Your task to perform on an android device: change alarm snooze length Image 0: 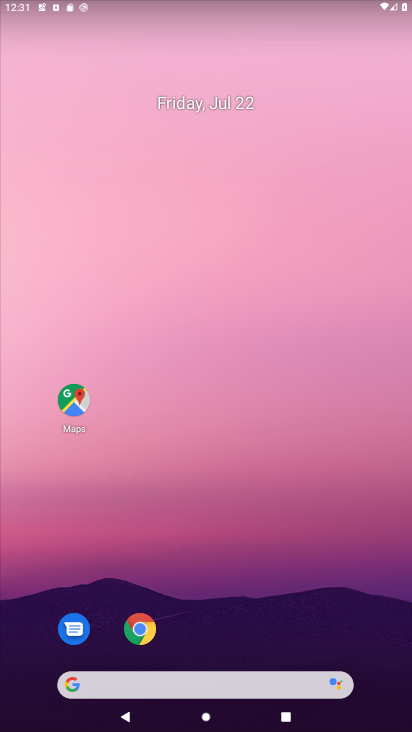
Step 0: drag from (275, 594) to (268, 62)
Your task to perform on an android device: change alarm snooze length Image 1: 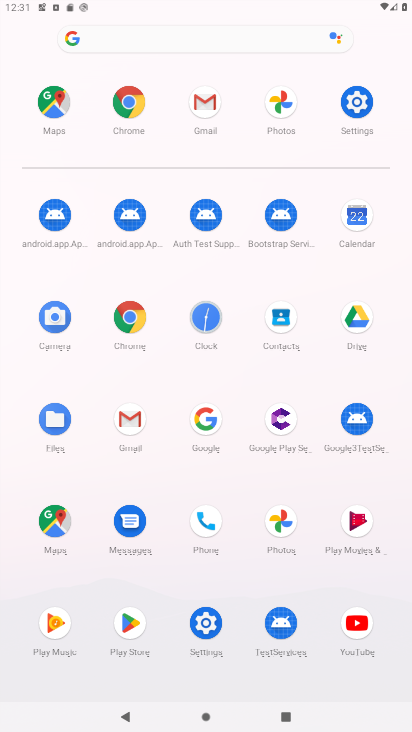
Step 1: click (209, 317)
Your task to perform on an android device: change alarm snooze length Image 2: 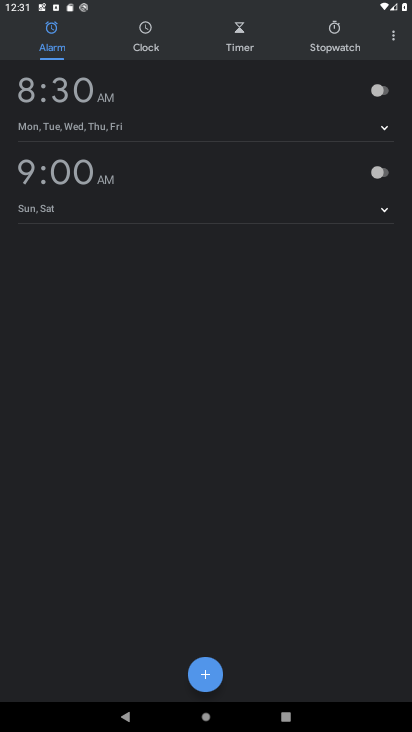
Step 2: click (393, 37)
Your task to perform on an android device: change alarm snooze length Image 3: 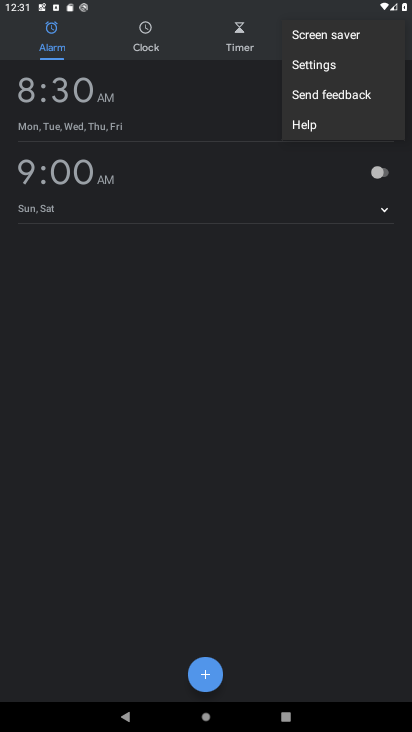
Step 3: click (350, 63)
Your task to perform on an android device: change alarm snooze length Image 4: 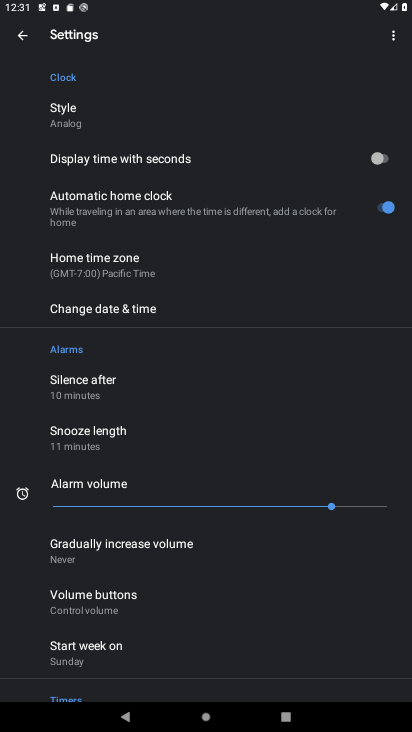
Step 4: click (151, 439)
Your task to perform on an android device: change alarm snooze length Image 5: 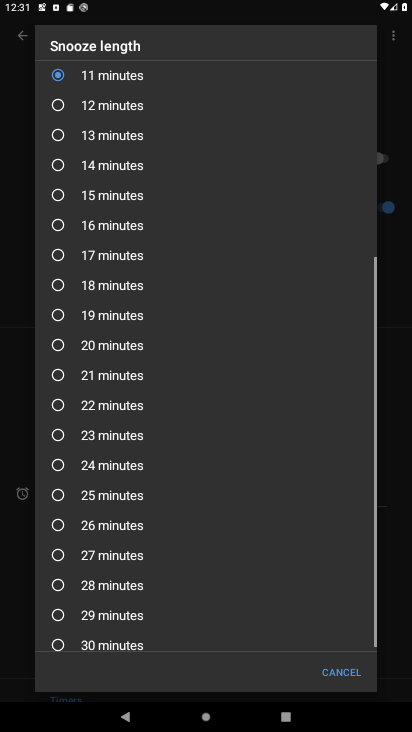
Step 5: click (108, 107)
Your task to perform on an android device: change alarm snooze length Image 6: 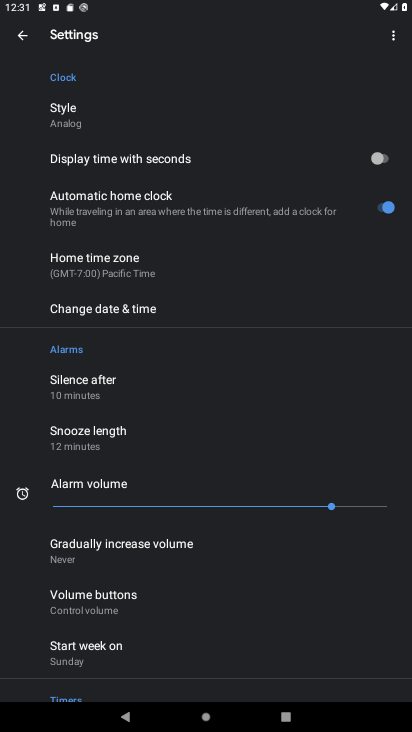
Step 6: task complete